Your task to perform on an android device: Show me the alarms in the clock app Image 0: 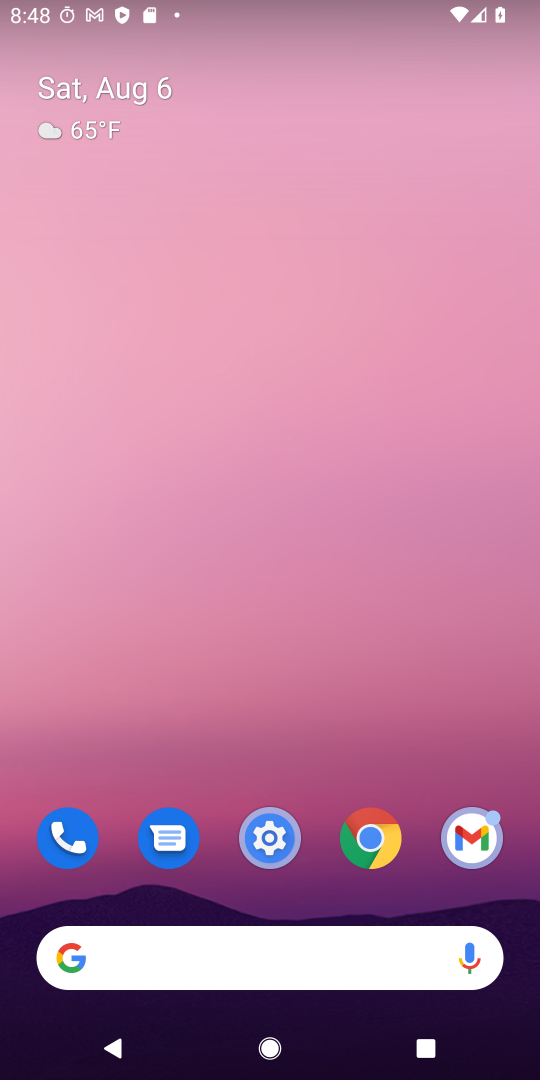
Step 0: drag from (227, 850) to (270, 163)
Your task to perform on an android device: Show me the alarms in the clock app Image 1: 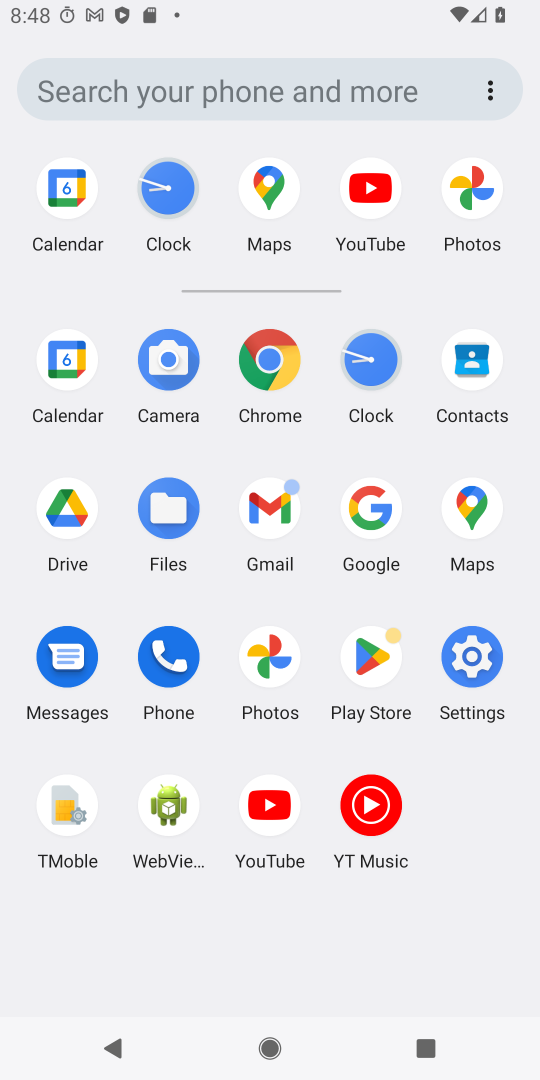
Step 1: click (366, 358)
Your task to perform on an android device: Show me the alarms in the clock app Image 2: 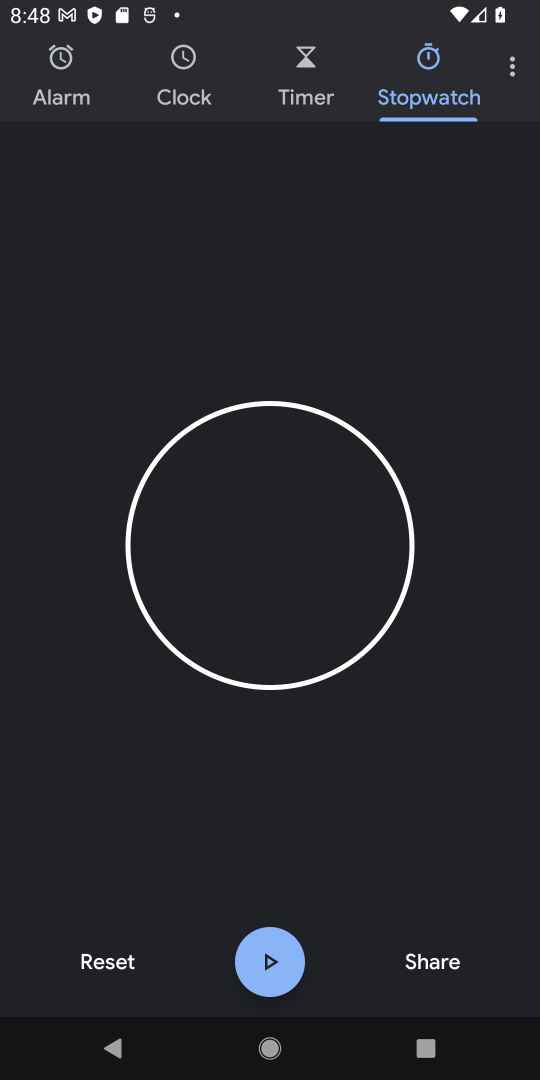
Step 2: click (50, 78)
Your task to perform on an android device: Show me the alarms in the clock app Image 3: 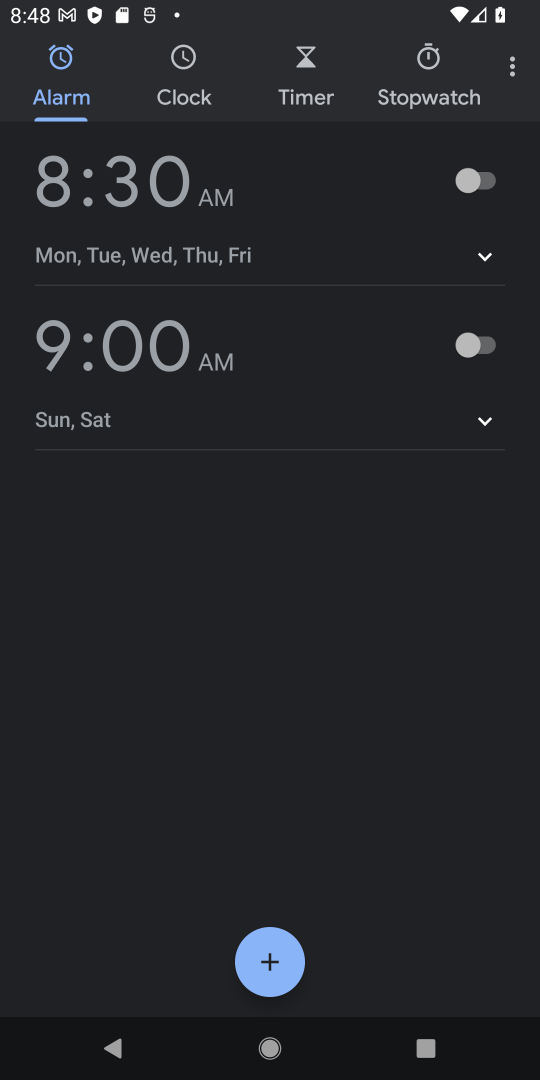
Step 3: task complete